Your task to perform on an android device: When is my next meeting? Image 0: 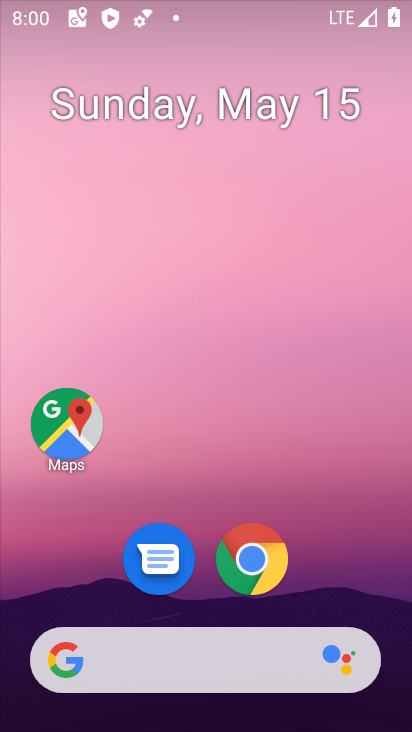
Step 0: drag from (335, 392) to (269, 1)
Your task to perform on an android device: When is my next meeting? Image 1: 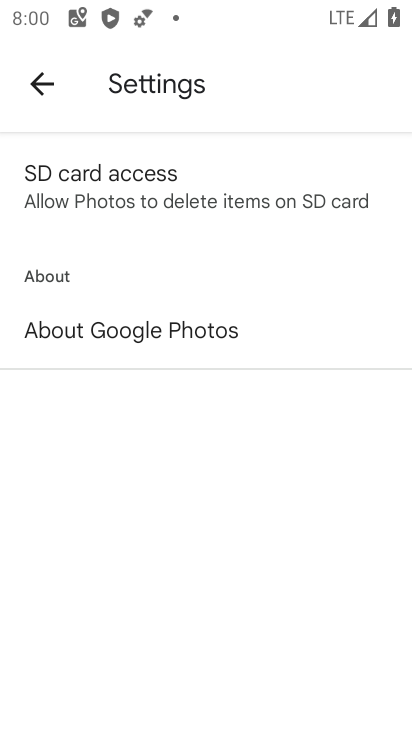
Step 1: click (27, 109)
Your task to perform on an android device: When is my next meeting? Image 2: 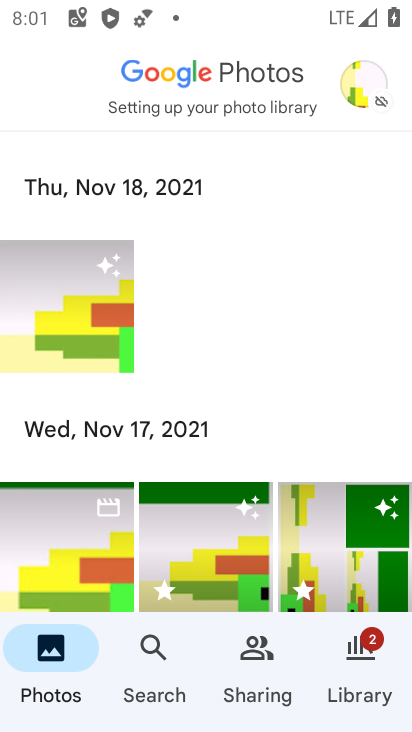
Step 2: press home button
Your task to perform on an android device: When is my next meeting? Image 3: 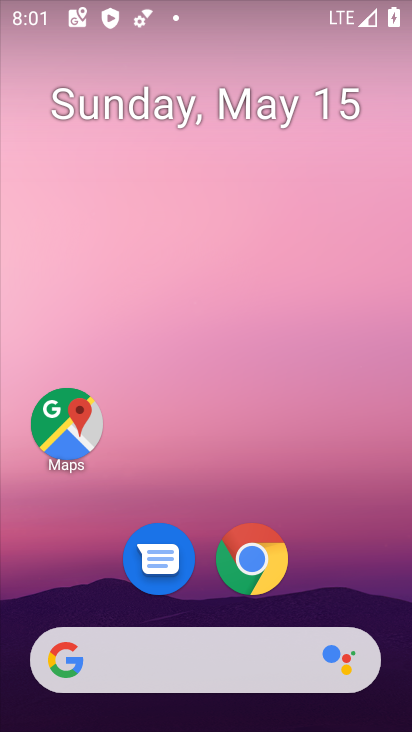
Step 3: click (367, 567)
Your task to perform on an android device: When is my next meeting? Image 4: 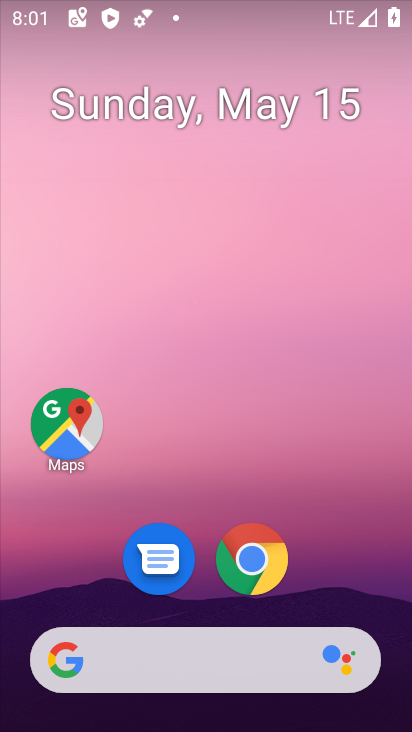
Step 4: click (367, 567)
Your task to perform on an android device: When is my next meeting? Image 5: 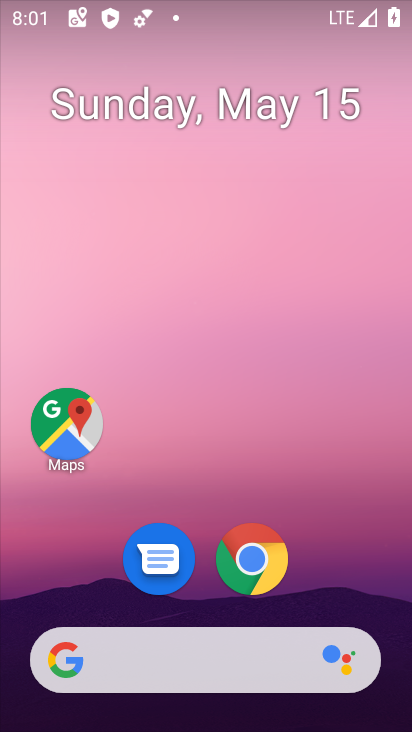
Step 5: drag from (367, 567) to (347, 194)
Your task to perform on an android device: When is my next meeting? Image 6: 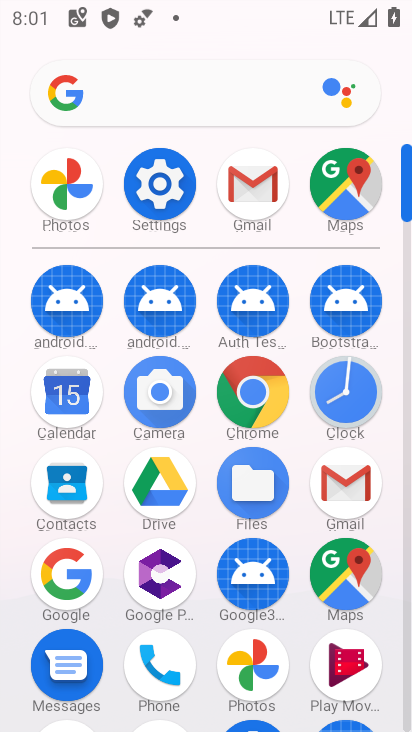
Step 6: click (74, 412)
Your task to perform on an android device: When is my next meeting? Image 7: 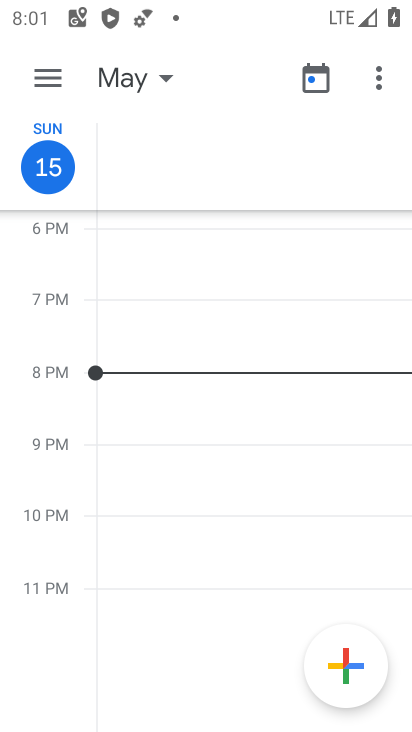
Step 7: click (62, 76)
Your task to perform on an android device: When is my next meeting? Image 8: 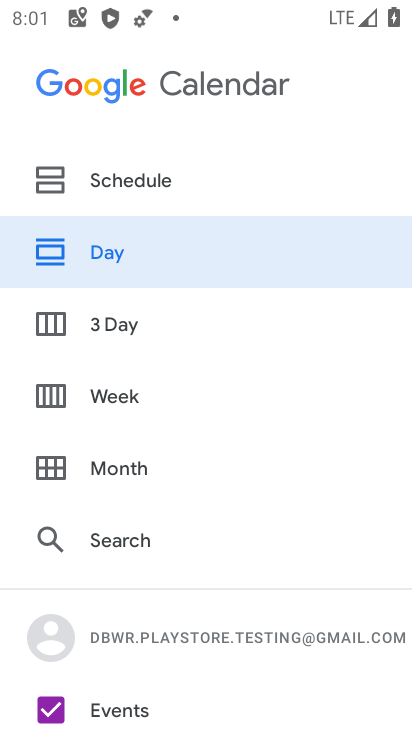
Step 8: click (115, 454)
Your task to perform on an android device: When is my next meeting? Image 9: 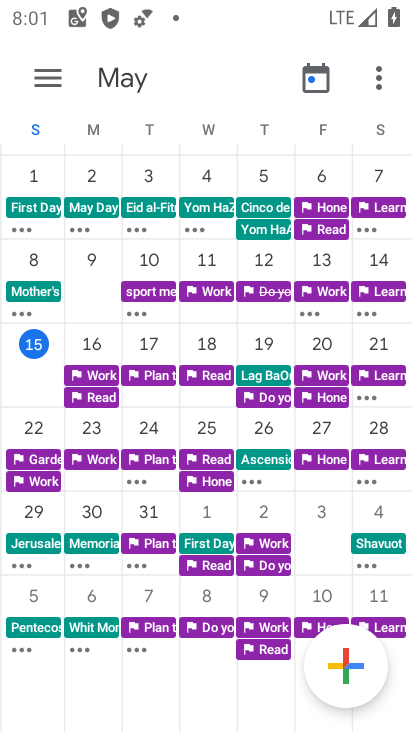
Step 9: task complete